Your task to perform on an android device: open chrome privacy settings Image 0: 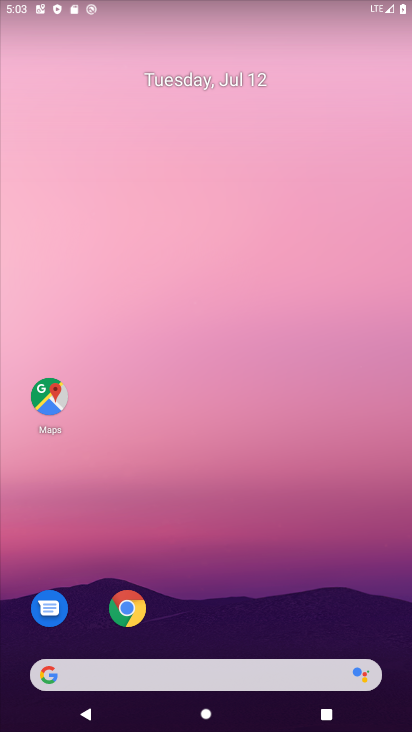
Step 0: click (128, 613)
Your task to perform on an android device: open chrome privacy settings Image 1: 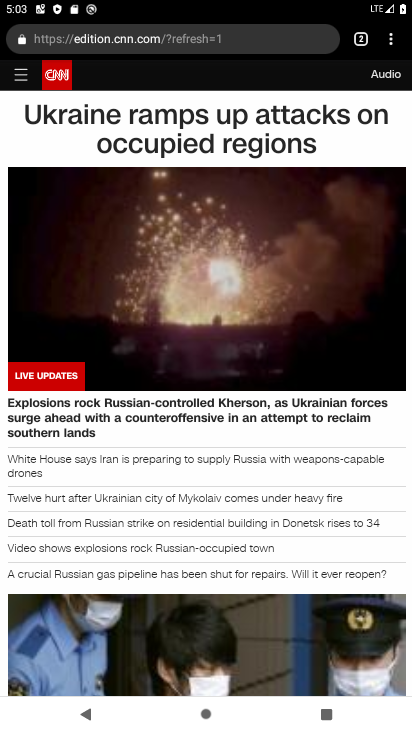
Step 1: click (394, 44)
Your task to perform on an android device: open chrome privacy settings Image 2: 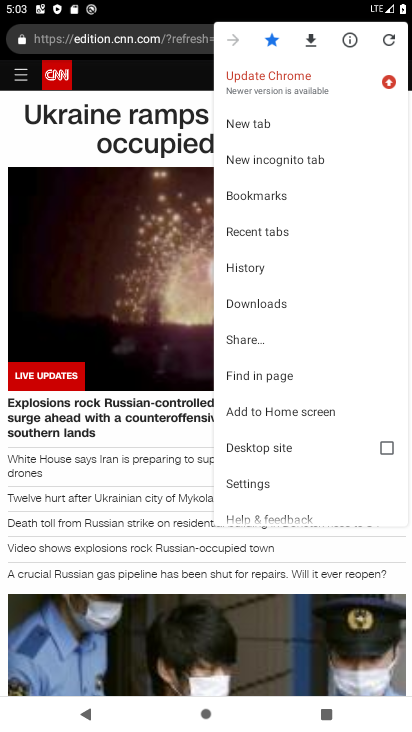
Step 2: click (269, 485)
Your task to perform on an android device: open chrome privacy settings Image 3: 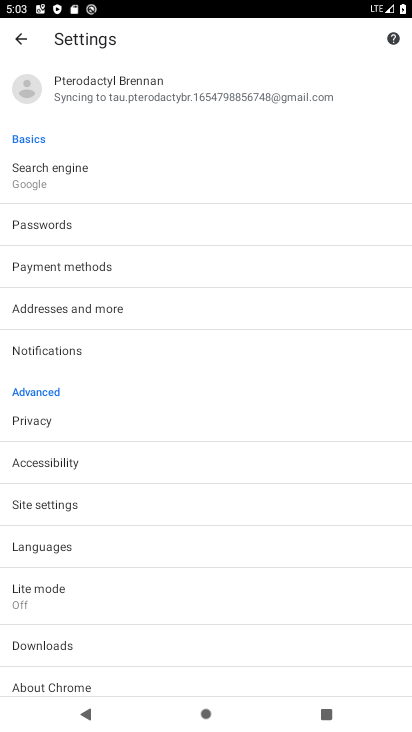
Step 3: click (66, 424)
Your task to perform on an android device: open chrome privacy settings Image 4: 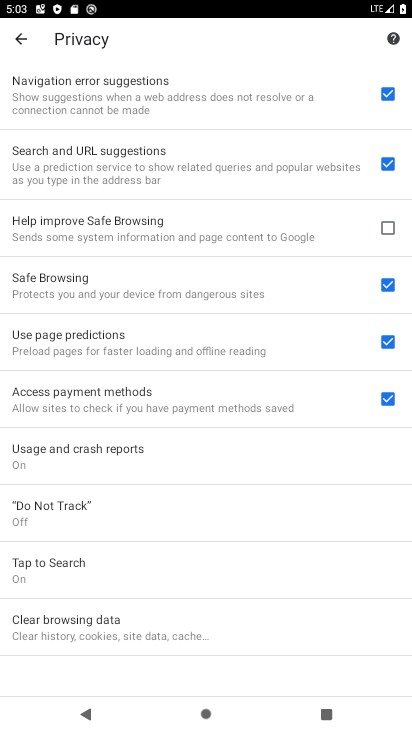
Step 4: task complete